Your task to perform on an android device: clear all cookies in the chrome app Image 0: 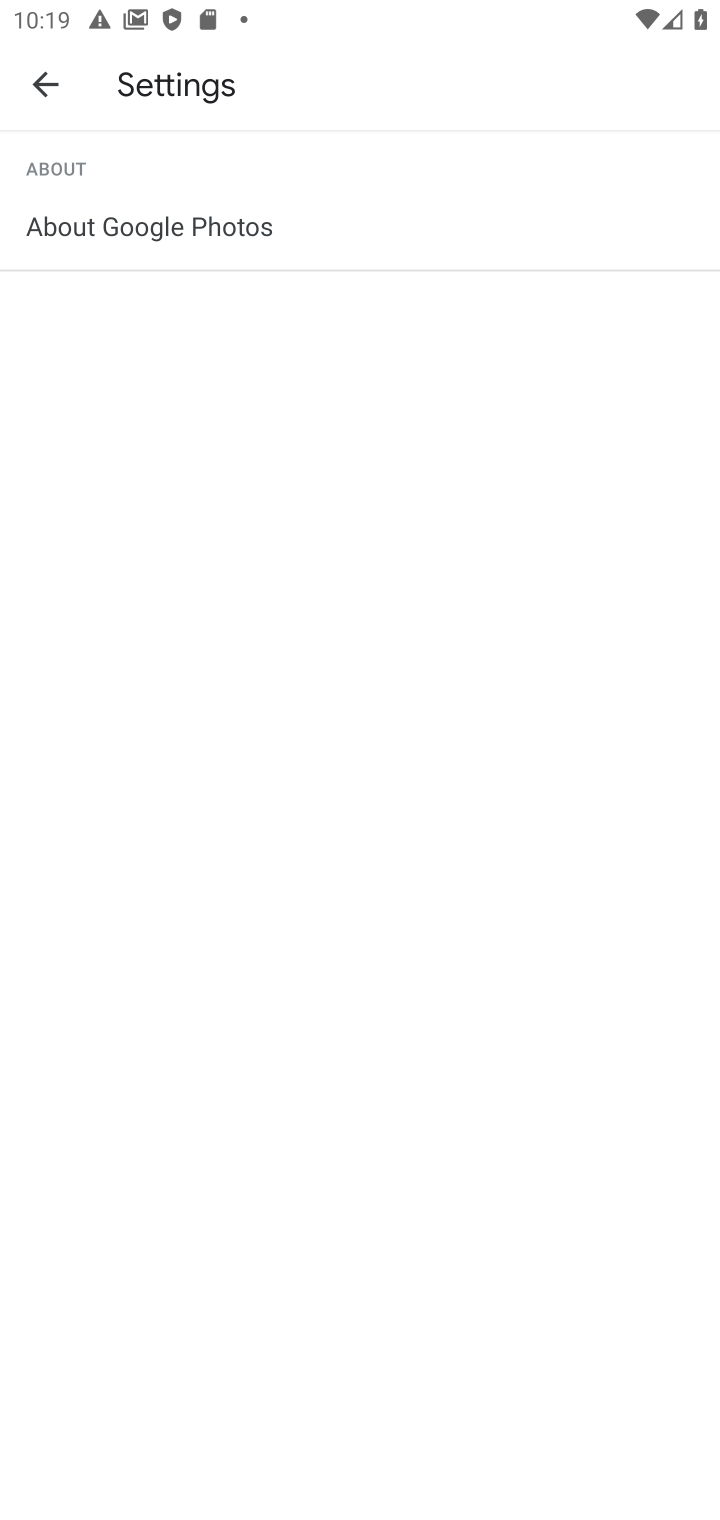
Step 0: press home button
Your task to perform on an android device: clear all cookies in the chrome app Image 1: 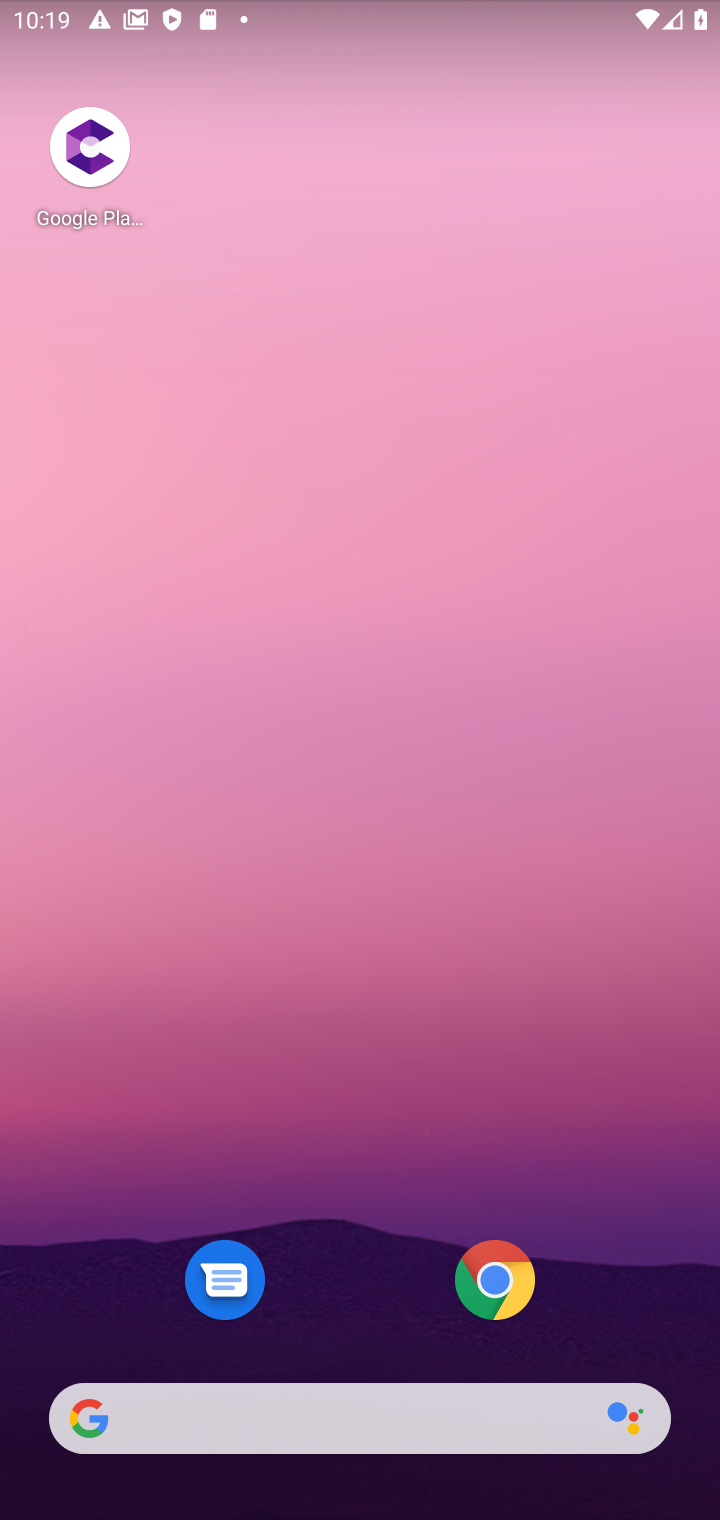
Step 1: drag from (420, 749) to (404, 557)
Your task to perform on an android device: clear all cookies in the chrome app Image 2: 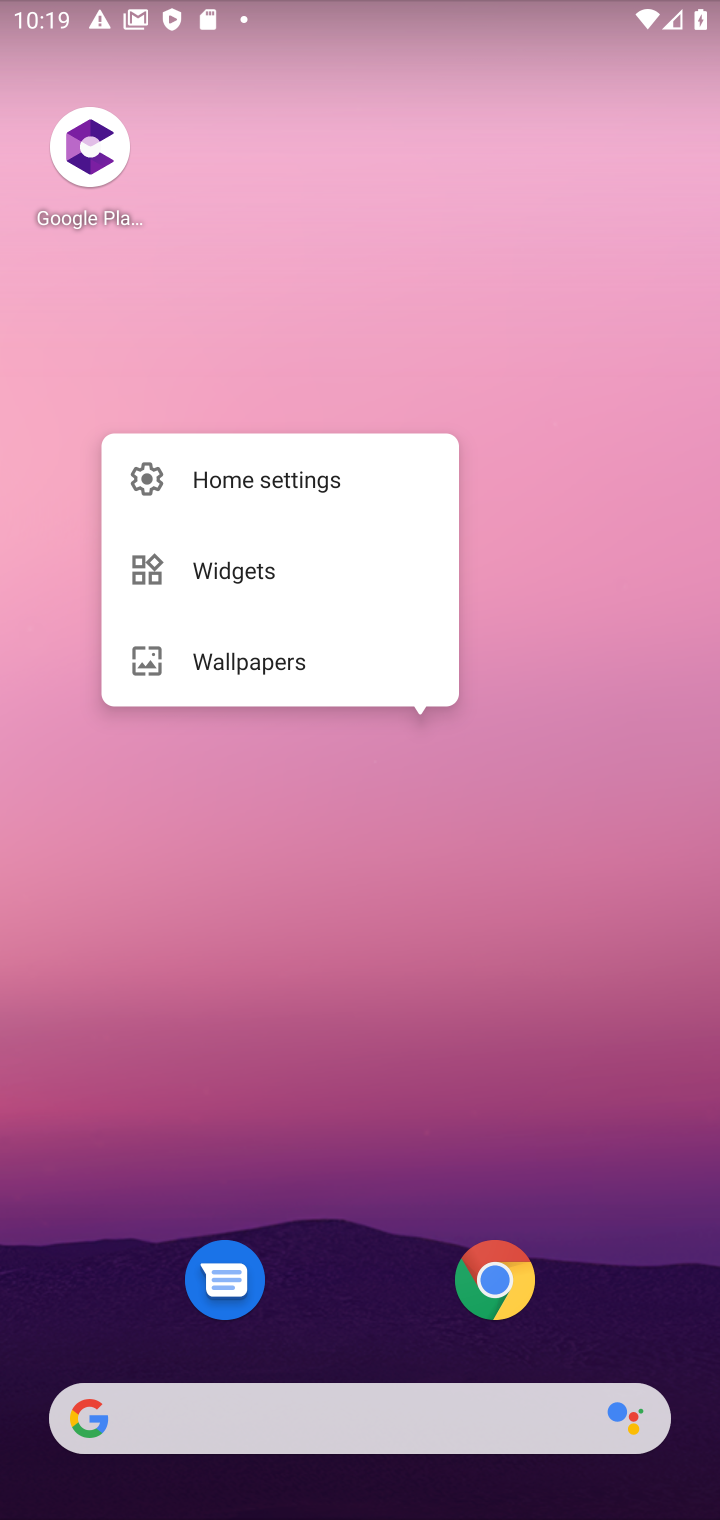
Step 2: click (514, 1305)
Your task to perform on an android device: clear all cookies in the chrome app Image 3: 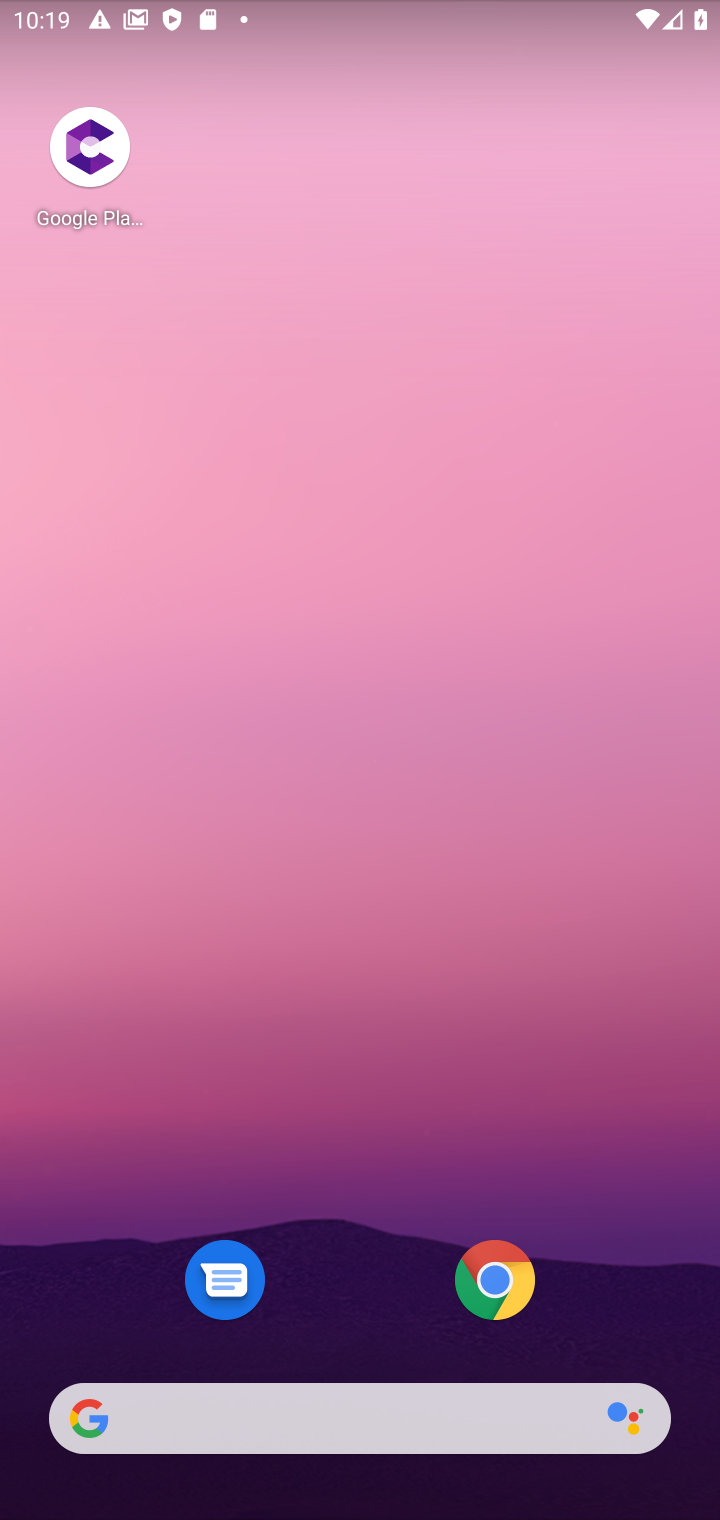
Step 3: click (514, 1305)
Your task to perform on an android device: clear all cookies in the chrome app Image 4: 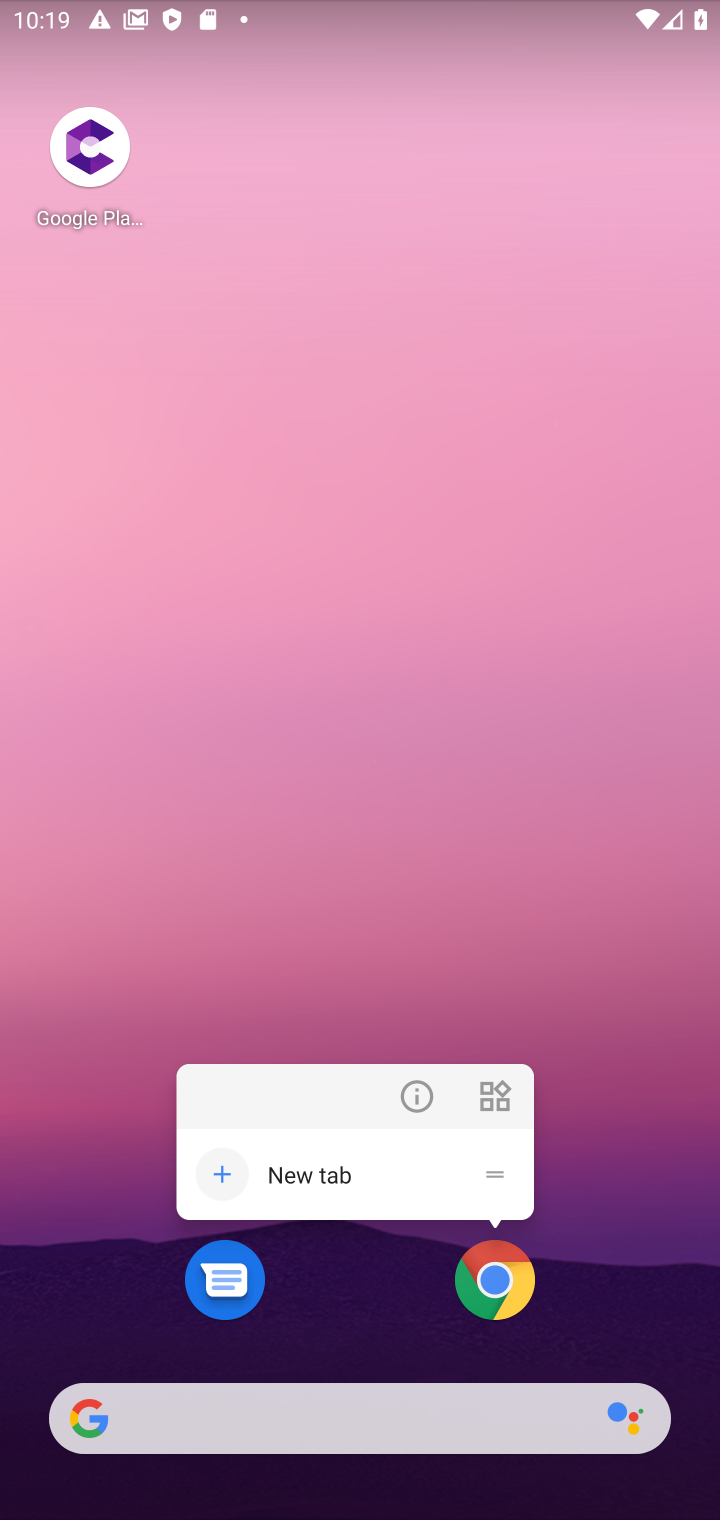
Step 4: click (514, 1305)
Your task to perform on an android device: clear all cookies in the chrome app Image 5: 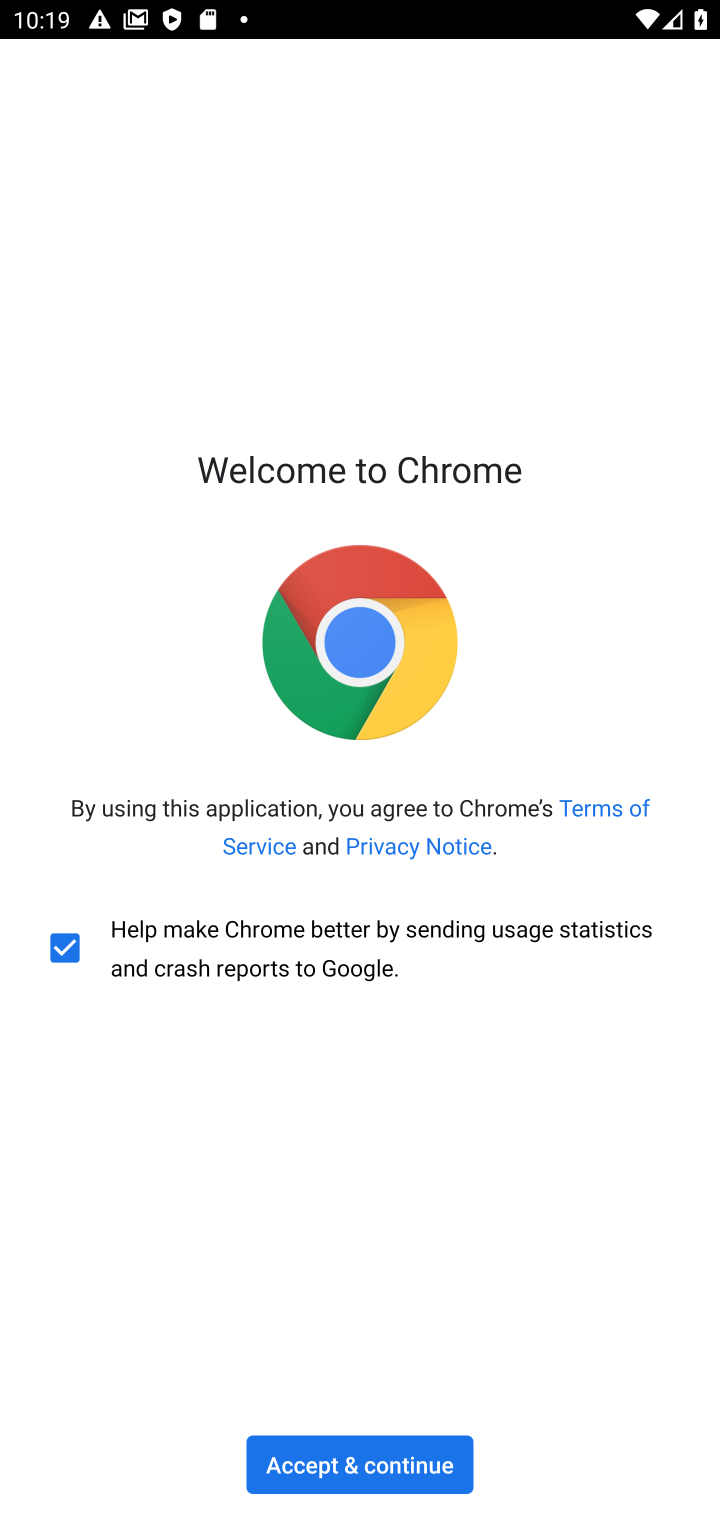
Step 5: click (414, 1466)
Your task to perform on an android device: clear all cookies in the chrome app Image 6: 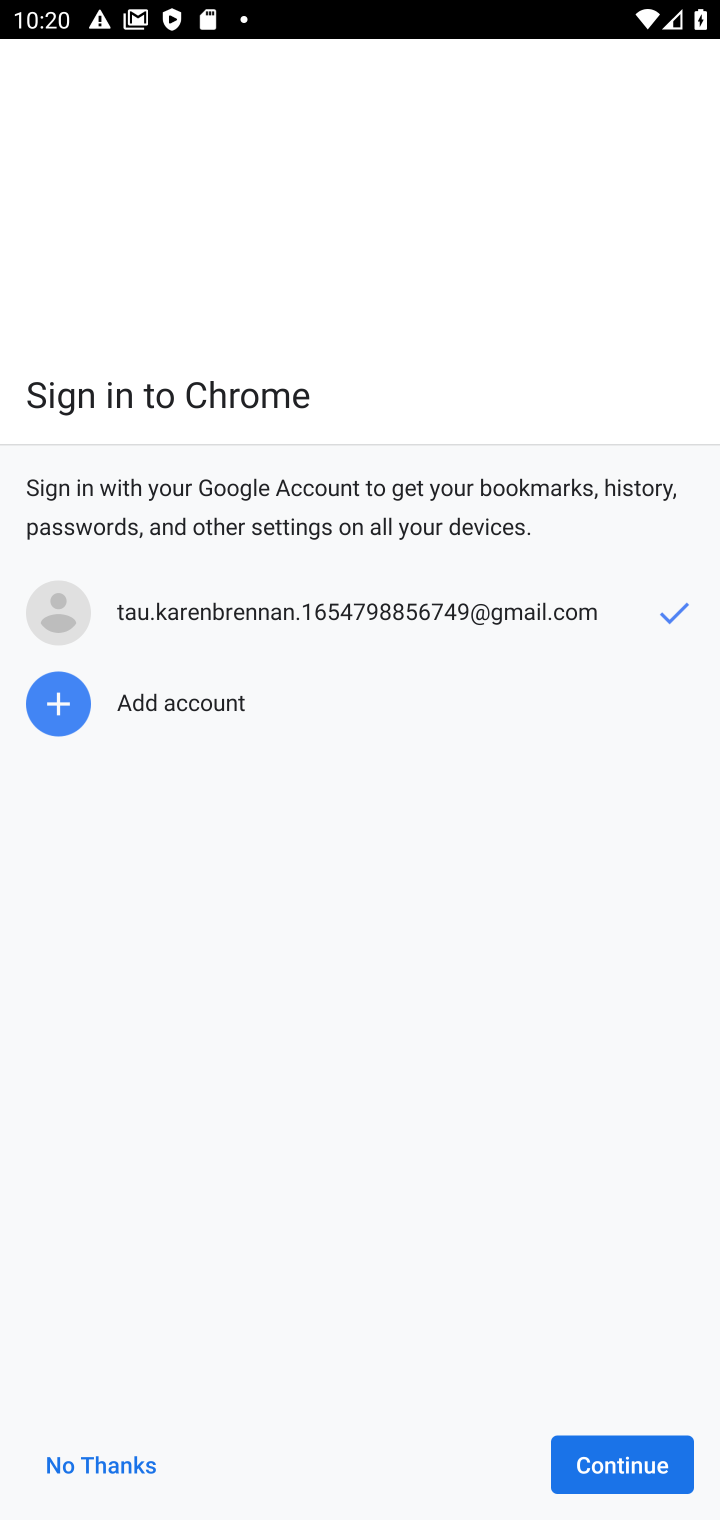
Step 6: click (621, 1458)
Your task to perform on an android device: clear all cookies in the chrome app Image 7: 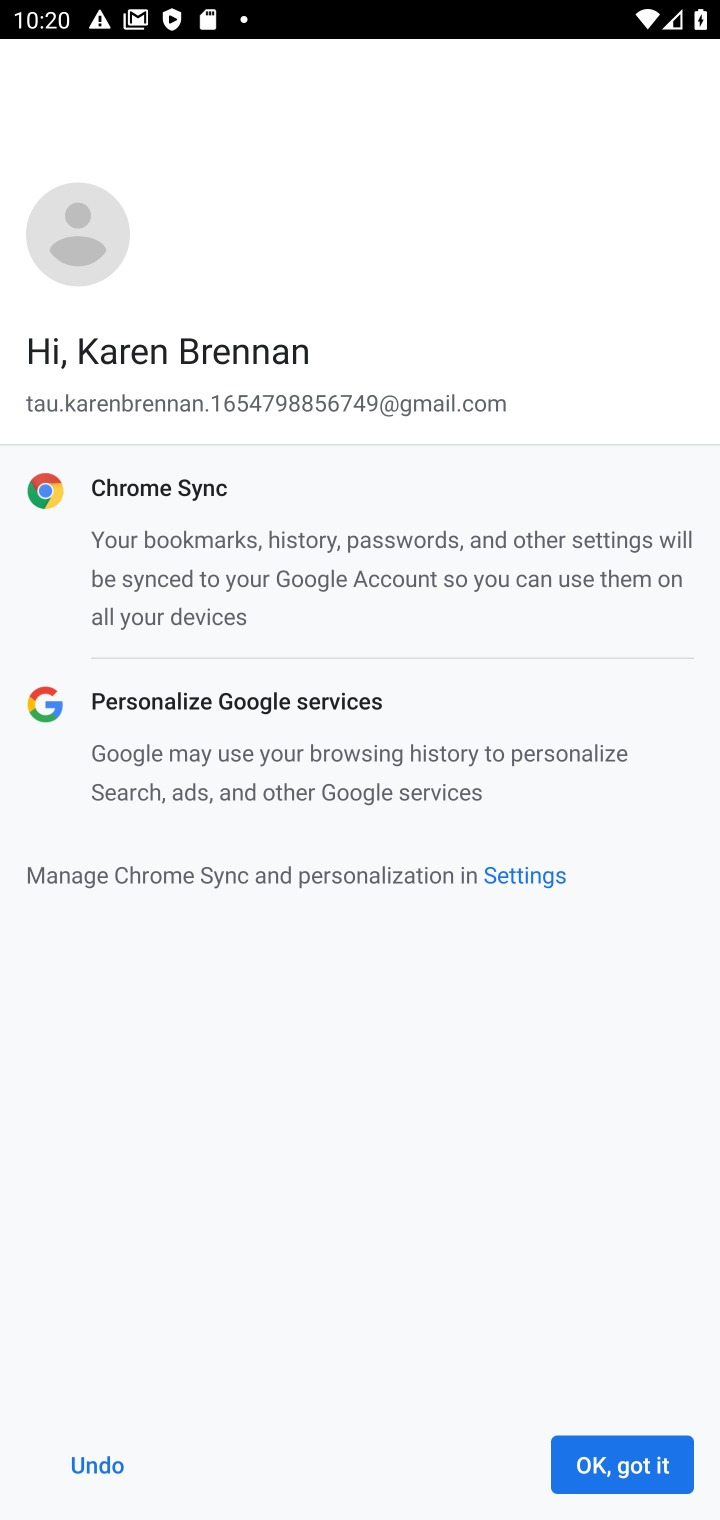
Step 7: click (621, 1458)
Your task to perform on an android device: clear all cookies in the chrome app Image 8: 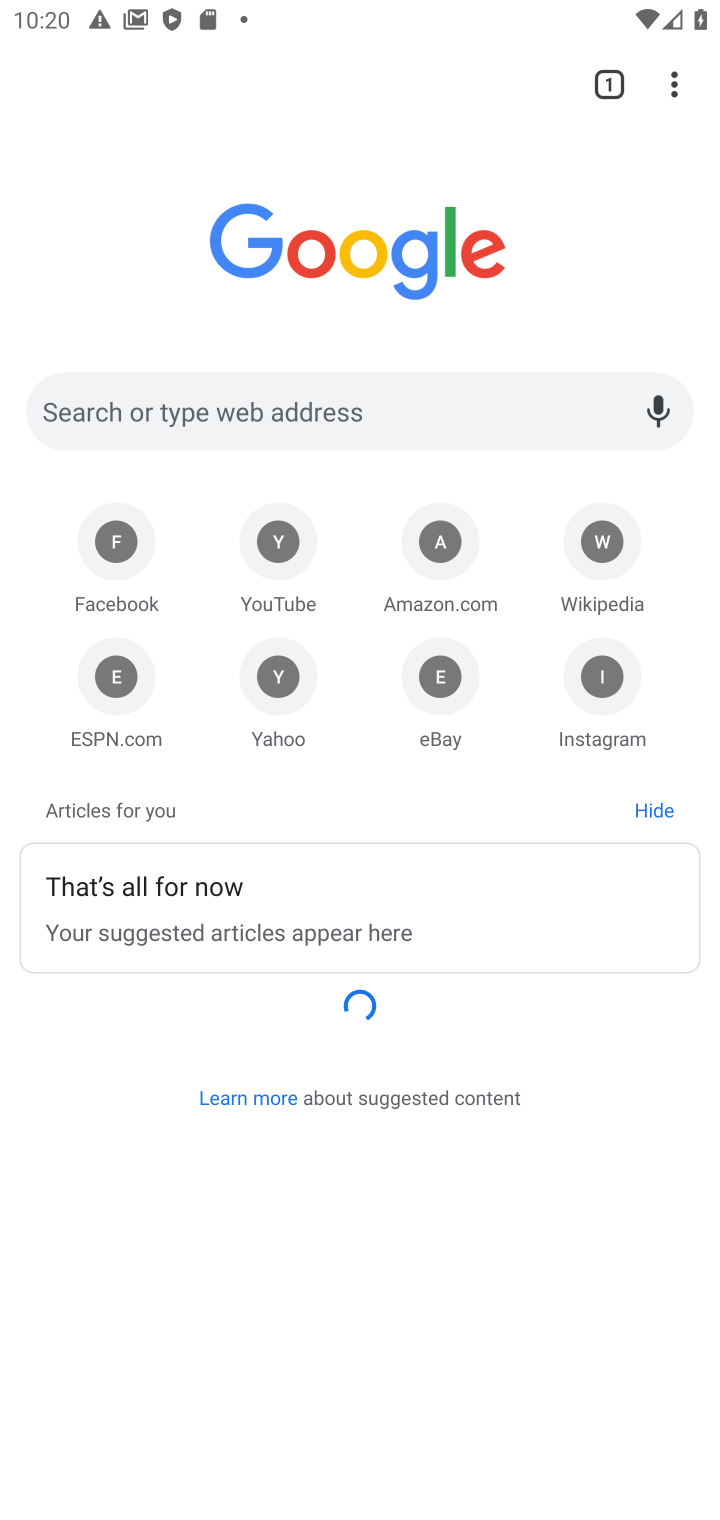
Step 8: click (664, 78)
Your task to perform on an android device: clear all cookies in the chrome app Image 9: 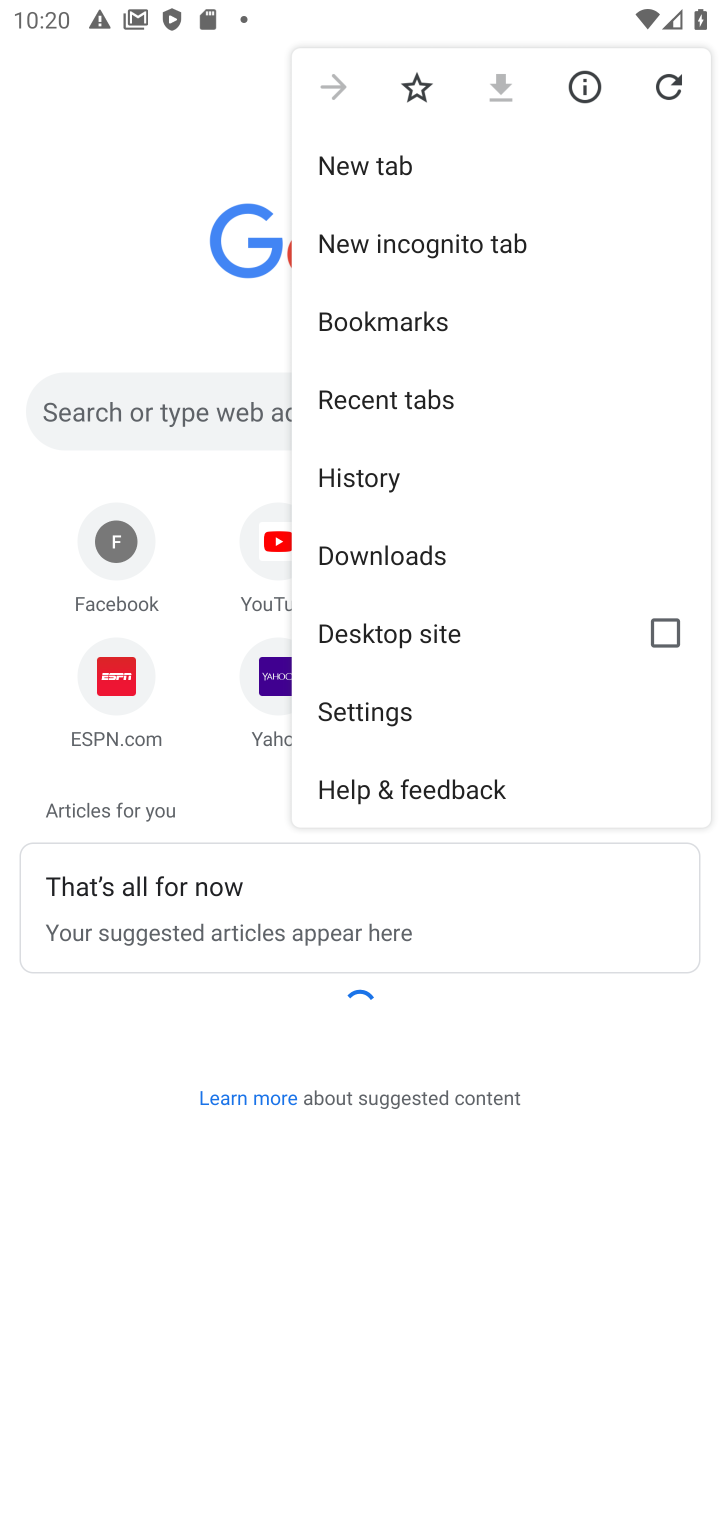
Step 9: click (376, 475)
Your task to perform on an android device: clear all cookies in the chrome app Image 10: 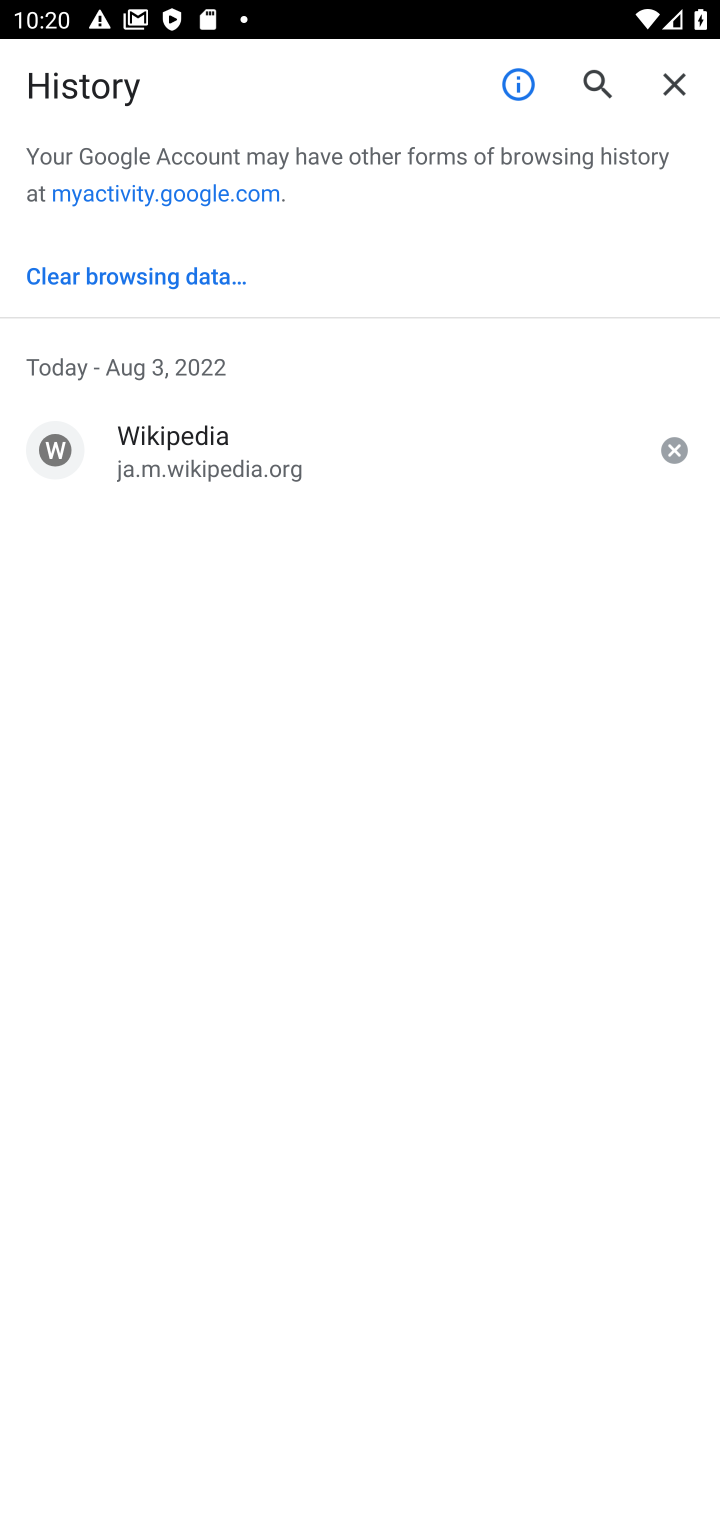
Step 10: click (109, 274)
Your task to perform on an android device: clear all cookies in the chrome app Image 11: 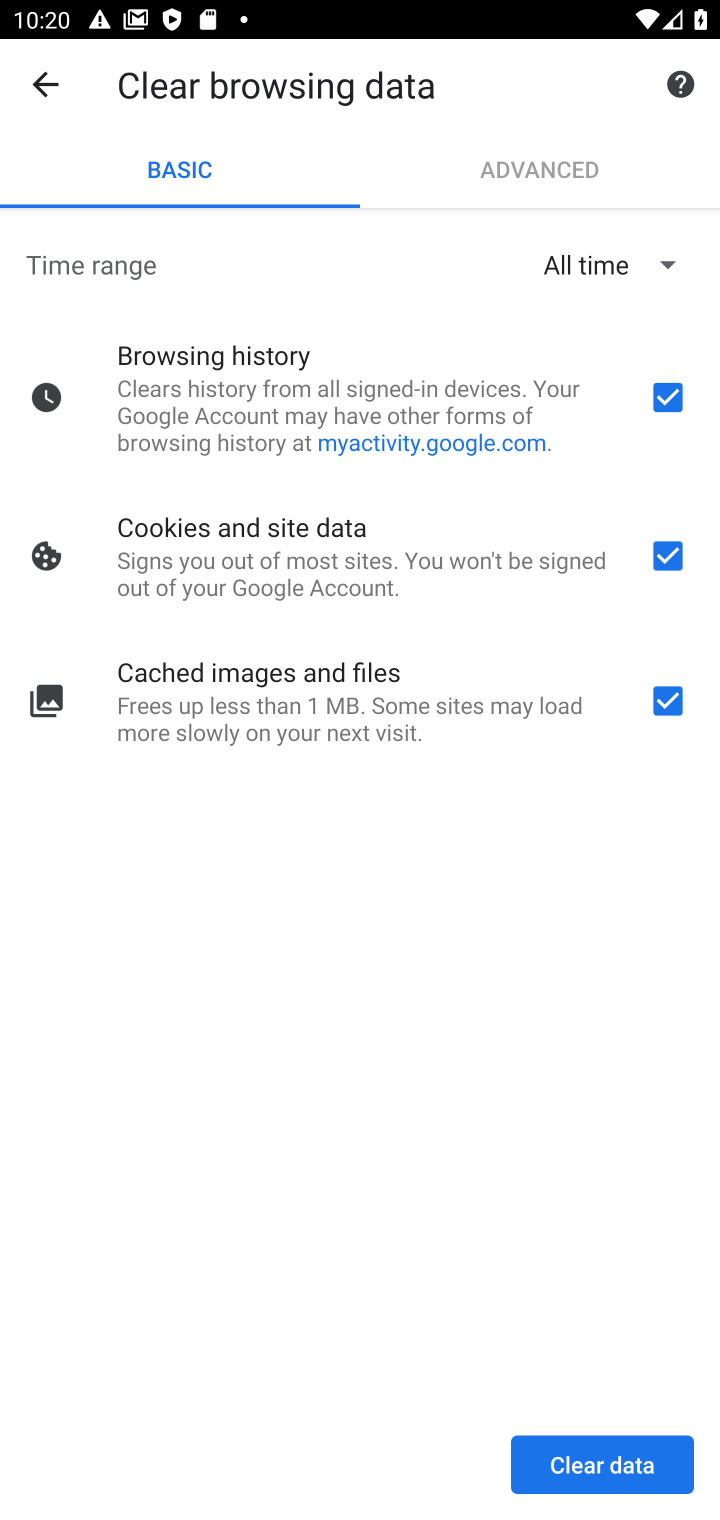
Step 11: click (666, 403)
Your task to perform on an android device: clear all cookies in the chrome app Image 12: 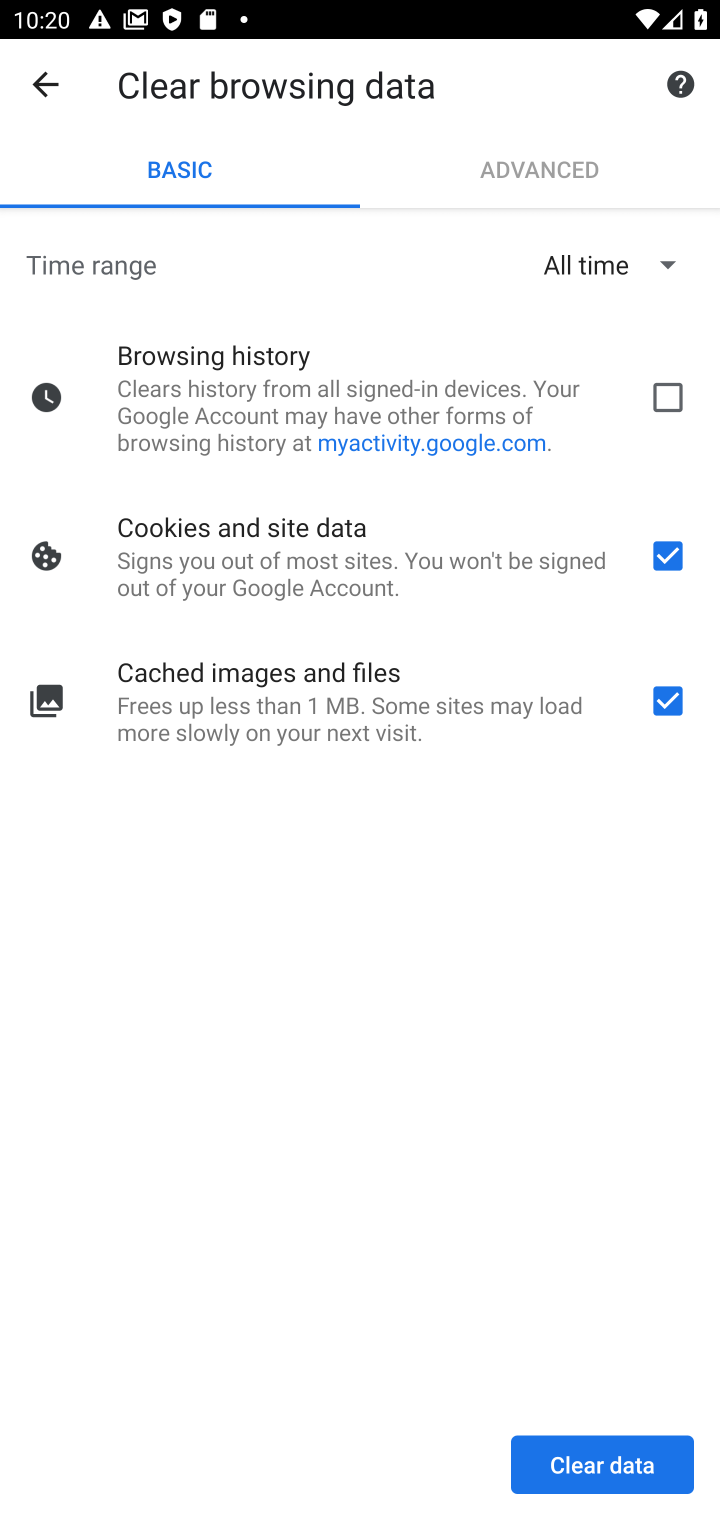
Step 12: click (659, 704)
Your task to perform on an android device: clear all cookies in the chrome app Image 13: 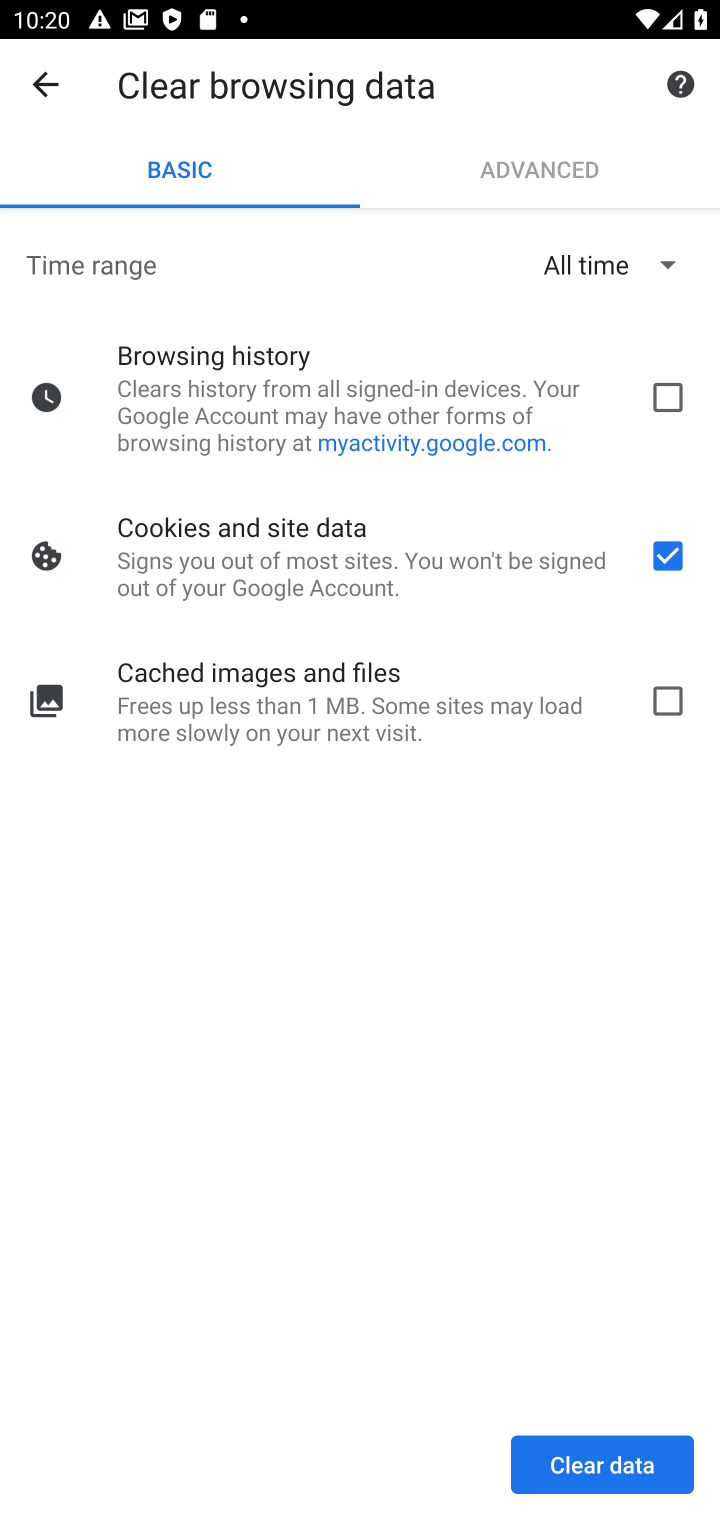
Step 13: click (621, 1486)
Your task to perform on an android device: clear all cookies in the chrome app Image 14: 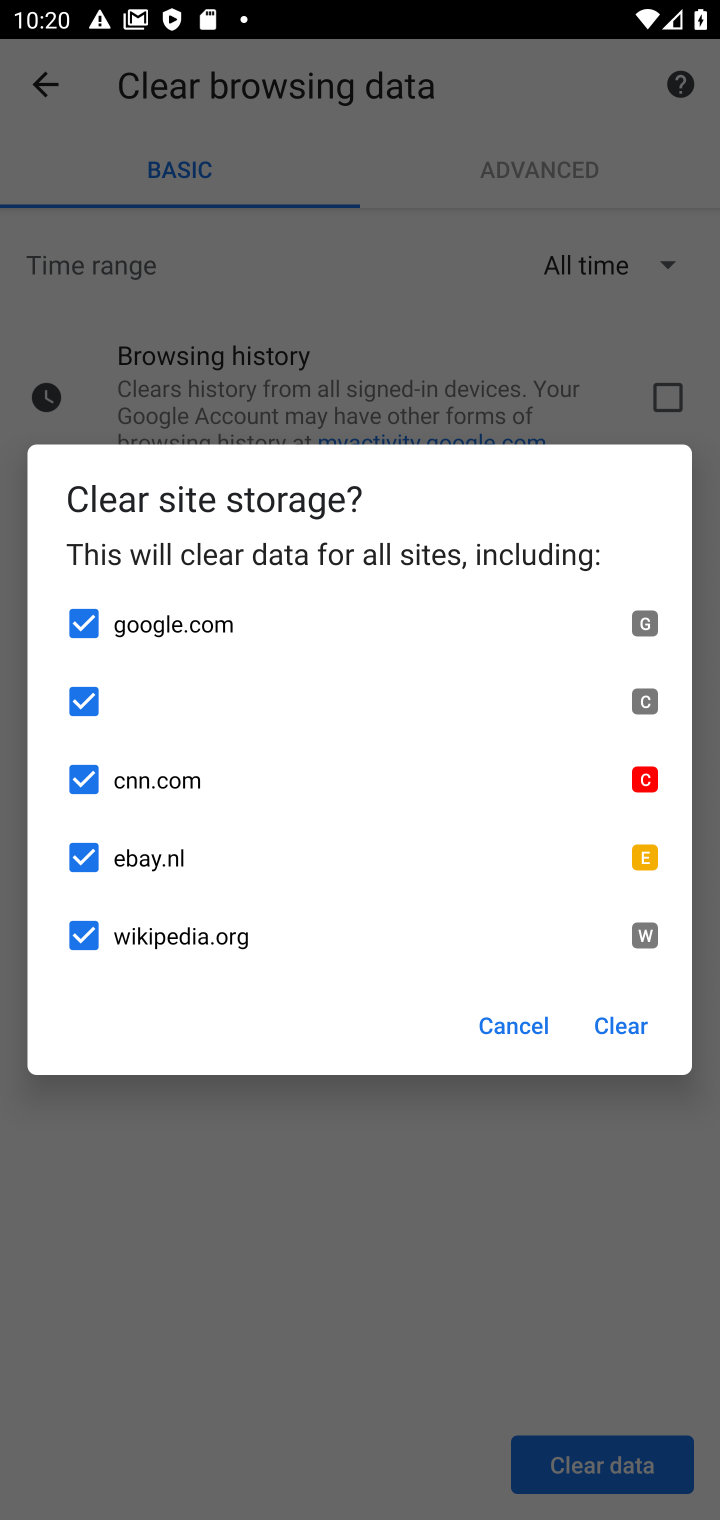
Step 14: click (634, 1015)
Your task to perform on an android device: clear all cookies in the chrome app Image 15: 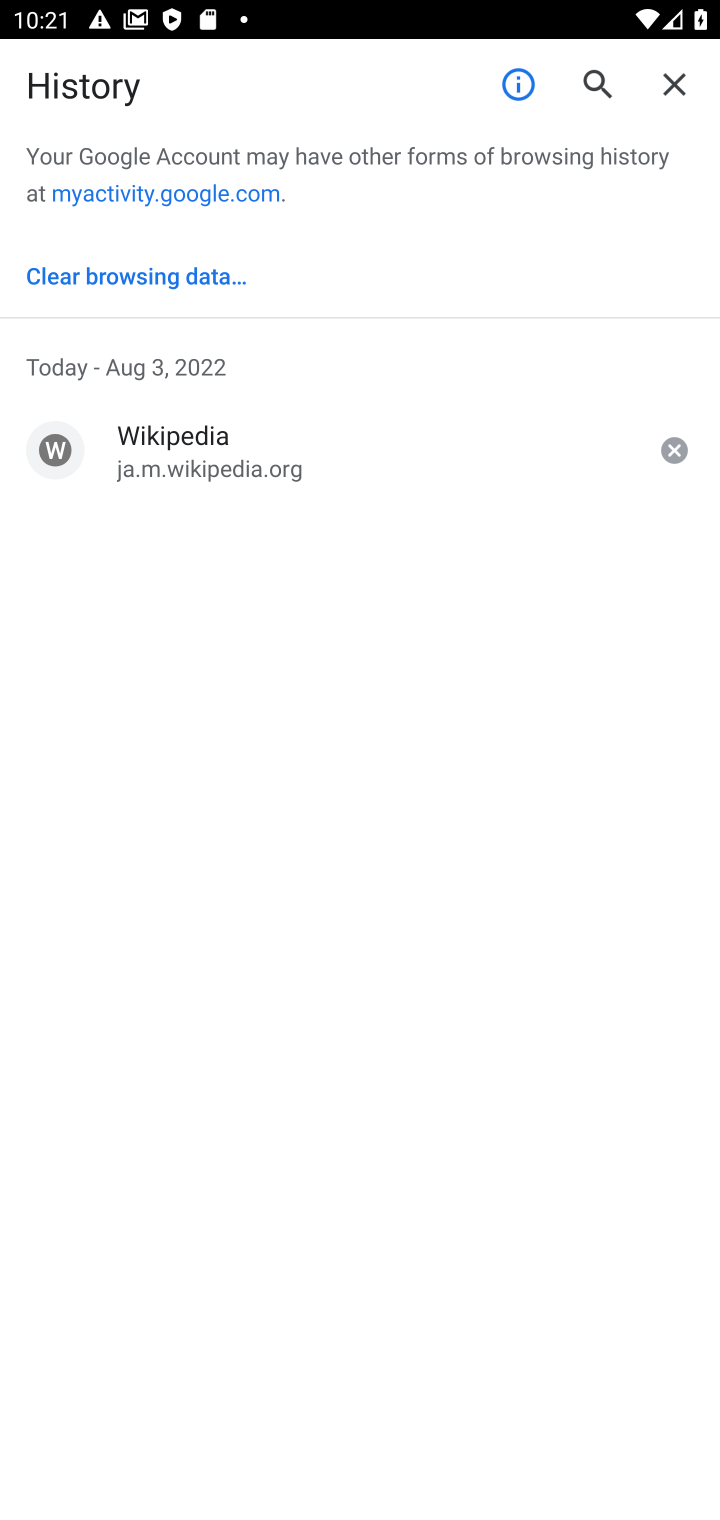
Step 15: task complete